Your task to perform on an android device: open app "YouTube Kids" (install if not already installed) and go to login screen Image 0: 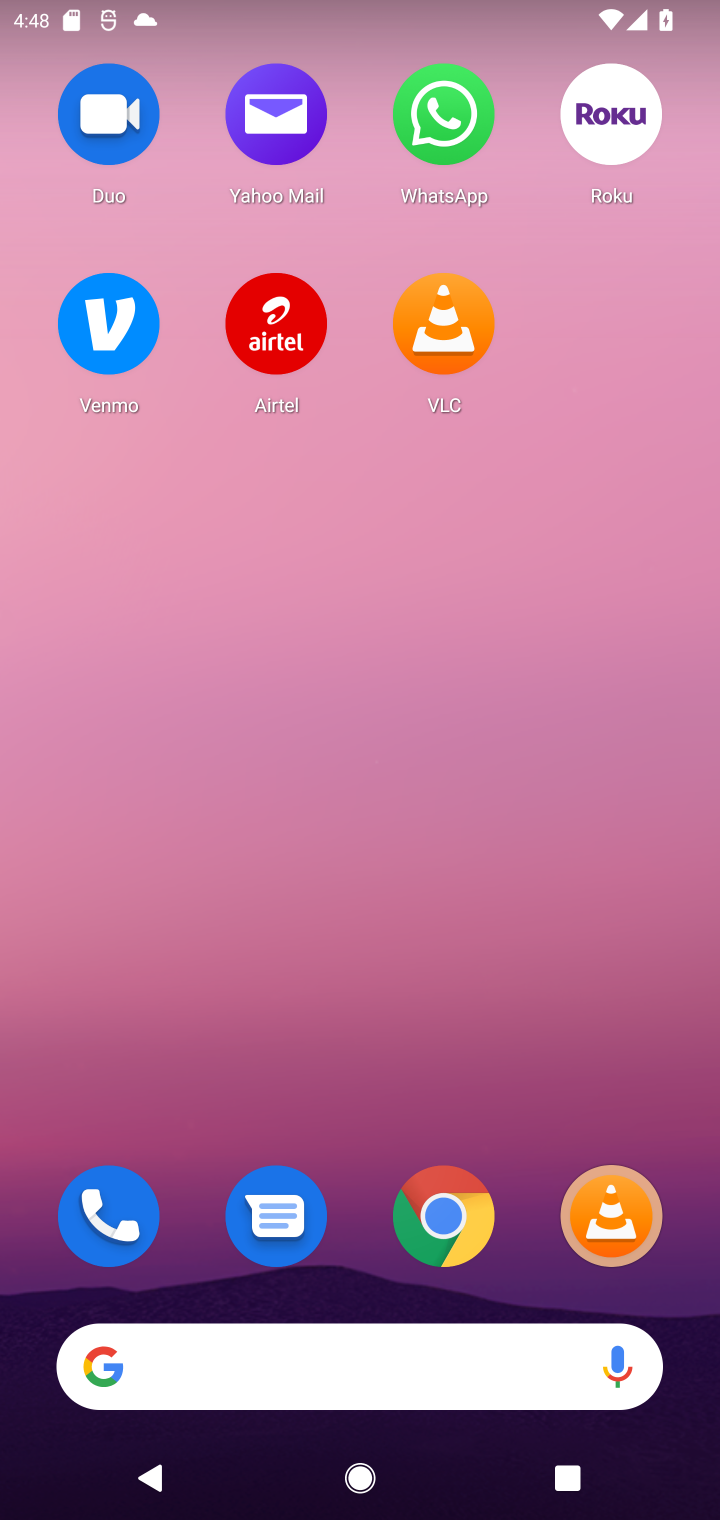
Step 0: drag from (394, 1083) to (403, 187)
Your task to perform on an android device: open app "YouTube Kids" (install if not already installed) and go to login screen Image 1: 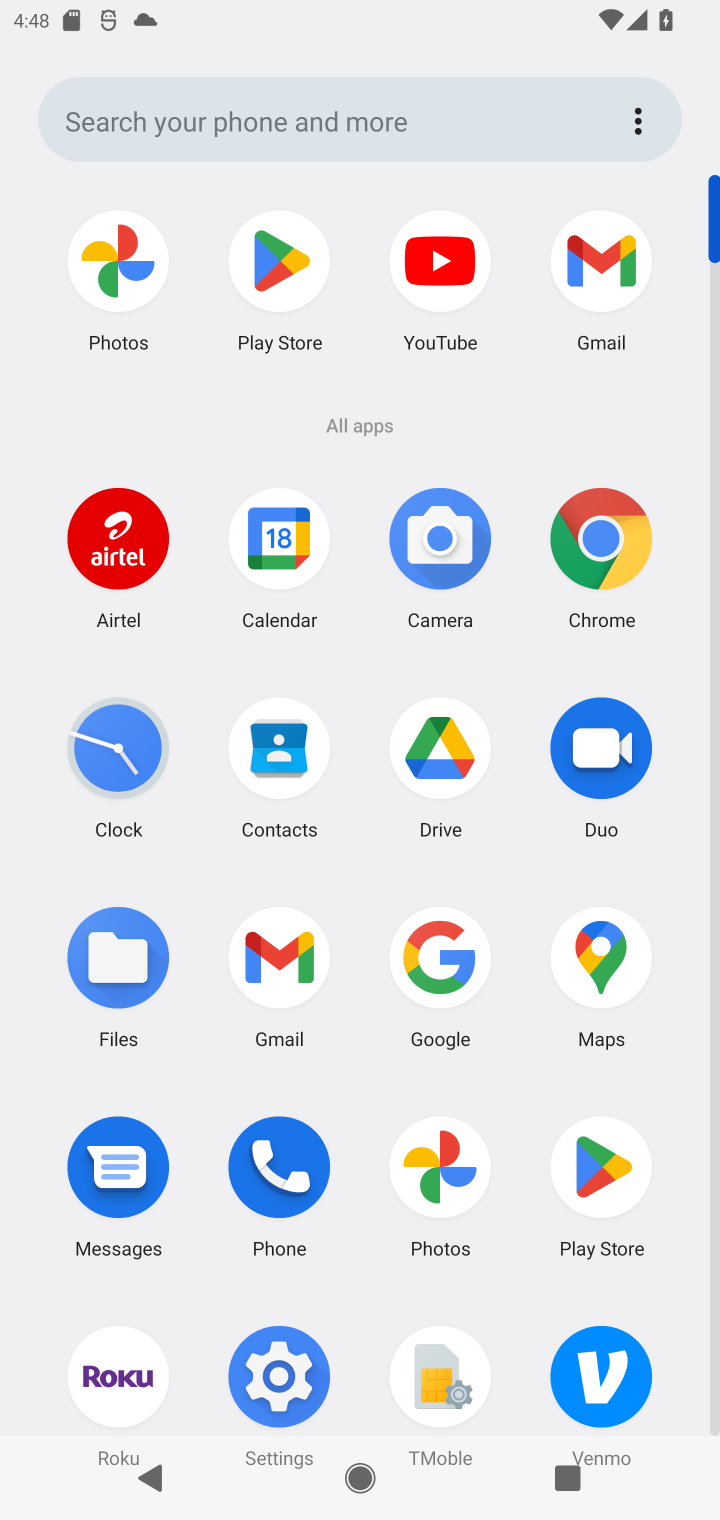
Step 1: click (294, 282)
Your task to perform on an android device: open app "YouTube Kids" (install if not already installed) and go to login screen Image 2: 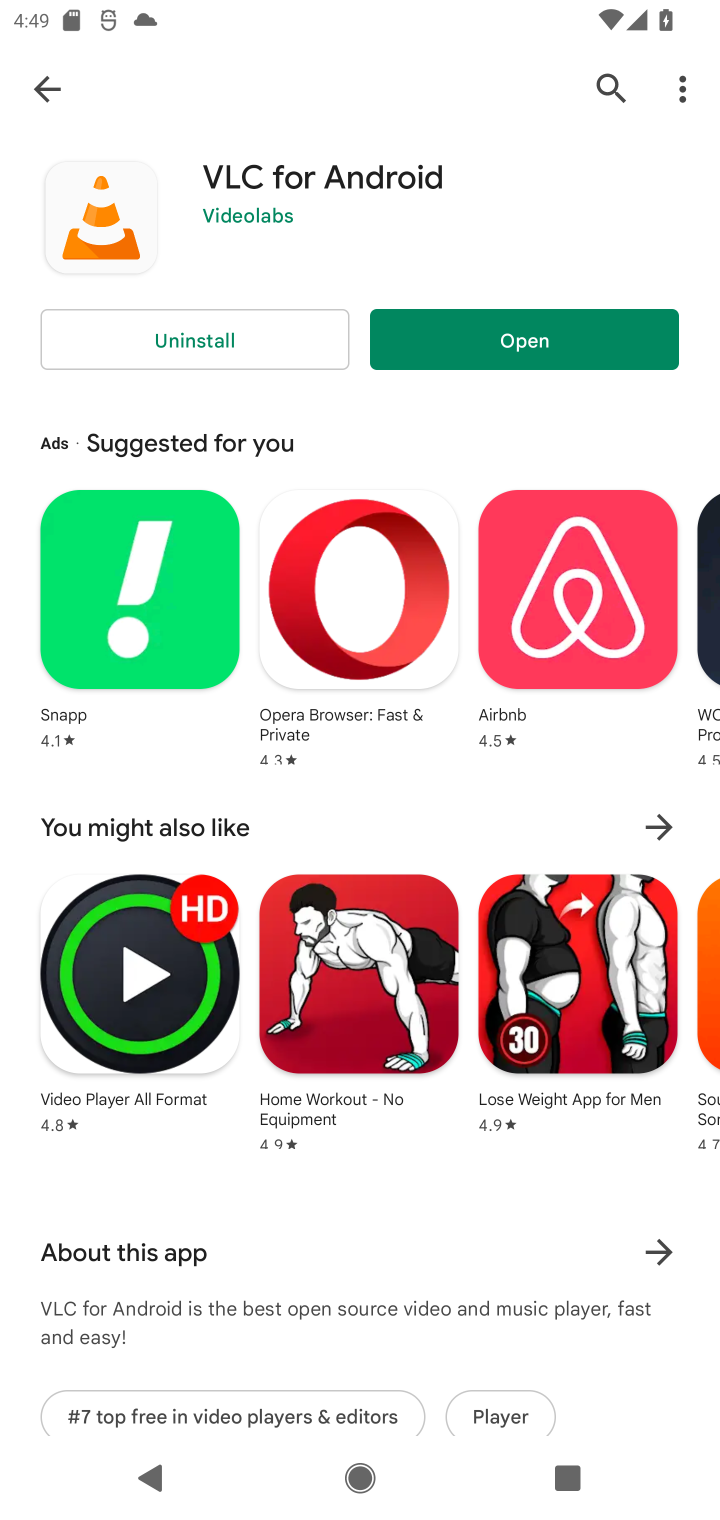
Step 2: click (614, 85)
Your task to perform on an android device: open app "YouTube Kids" (install if not already installed) and go to login screen Image 3: 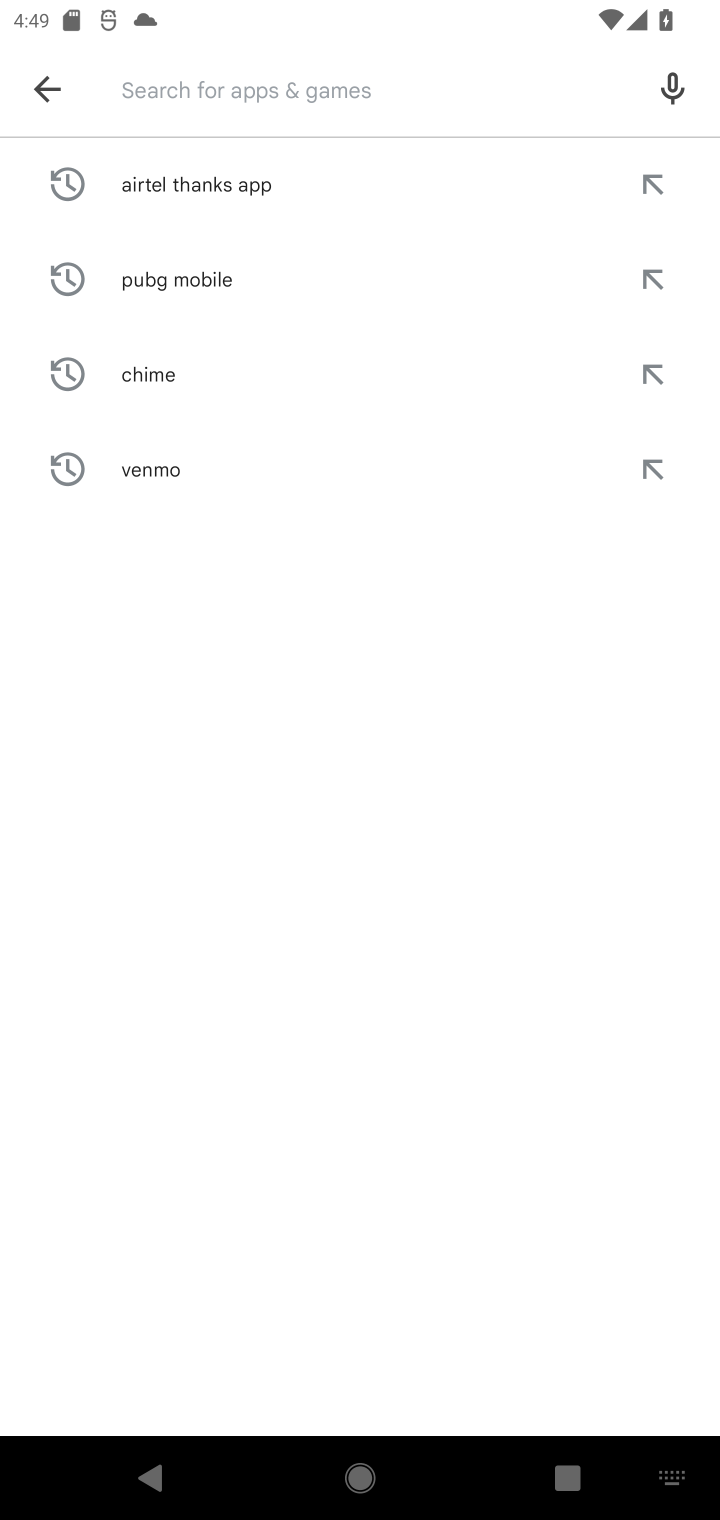
Step 3: type "YouTube Kids""
Your task to perform on an android device: open app "YouTube Kids" (install if not already installed) and go to login screen Image 4: 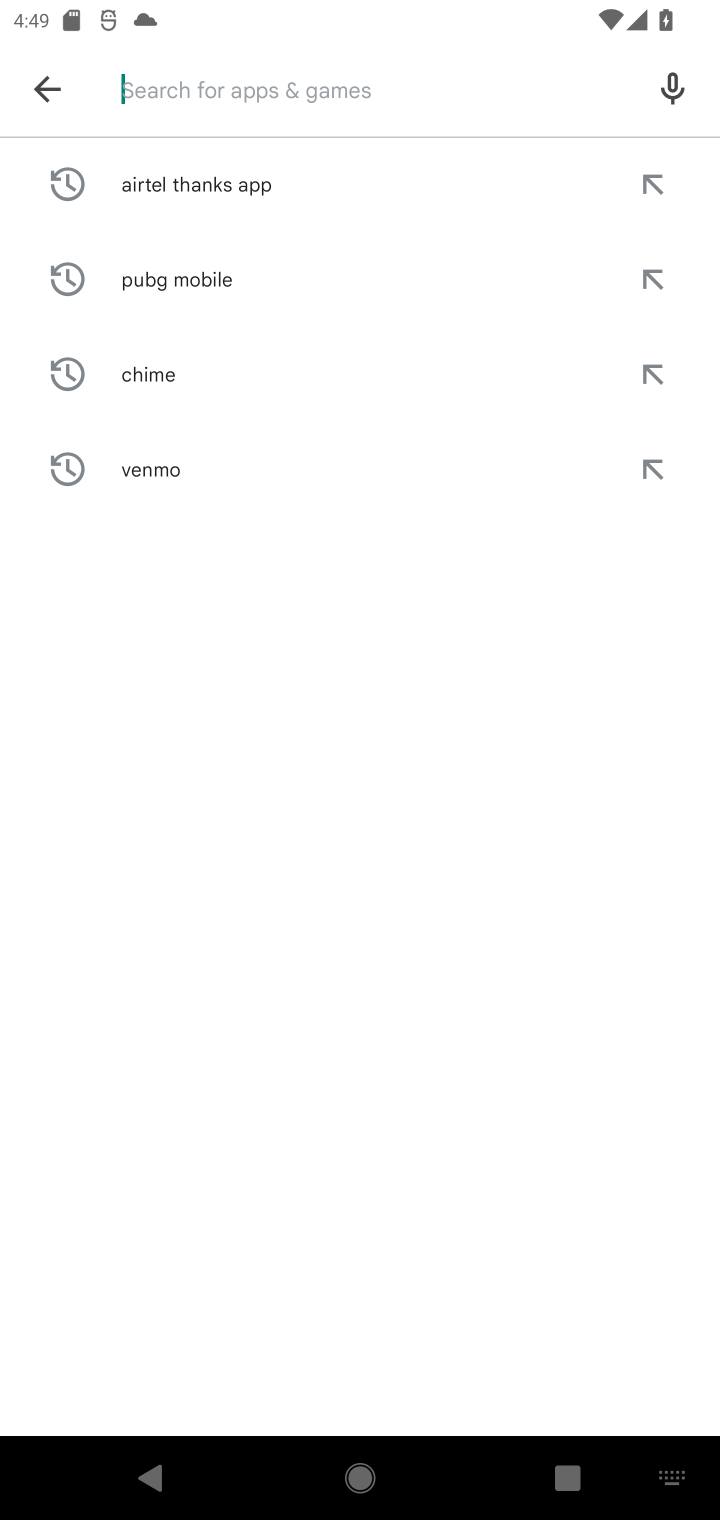
Step 4: type "YouTube Kids"
Your task to perform on an android device: open app "YouTube Kids" (install if not already installed) and go to login screen Image 5: 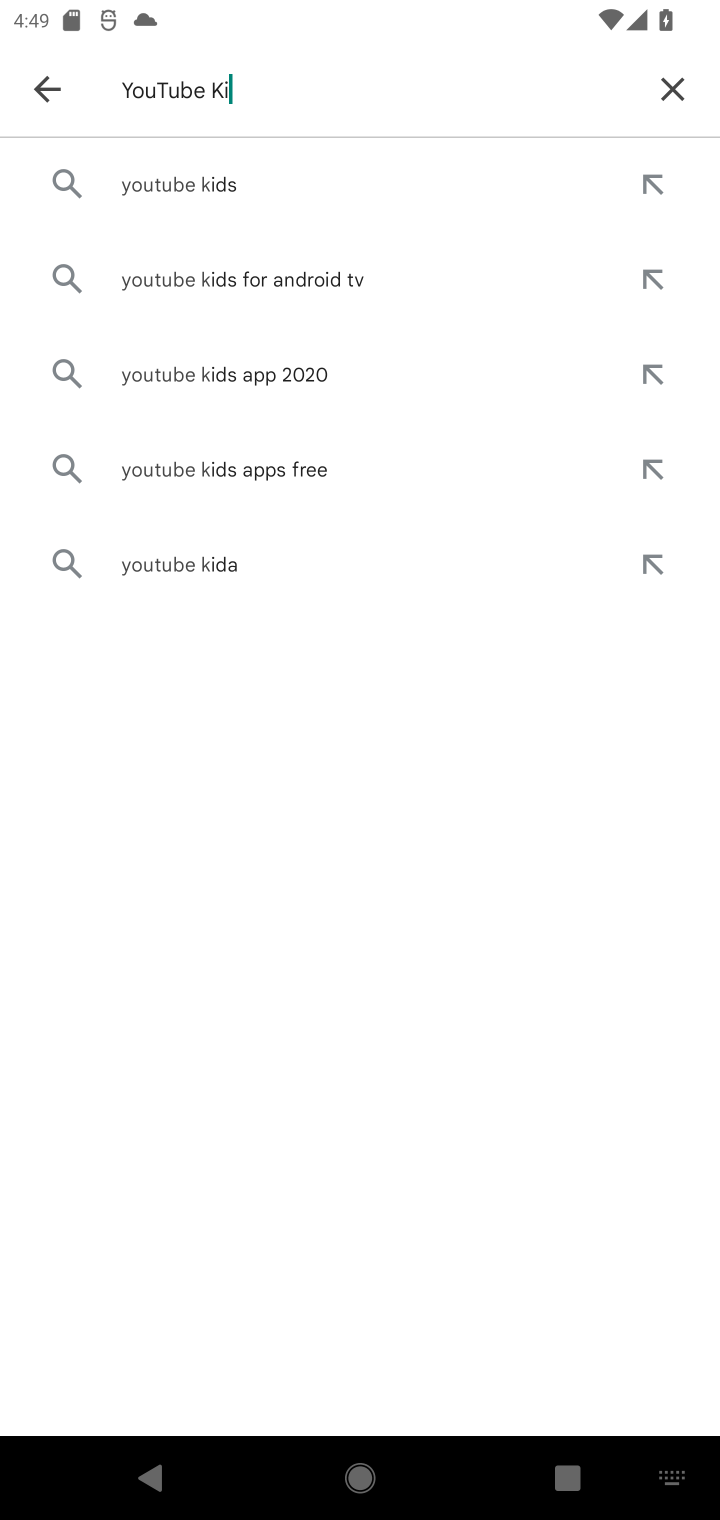
Step 5: type ""
Your task to perform on an android device: open app "YouTube Kids" (install if not already installed) and go to login screen Image 6: 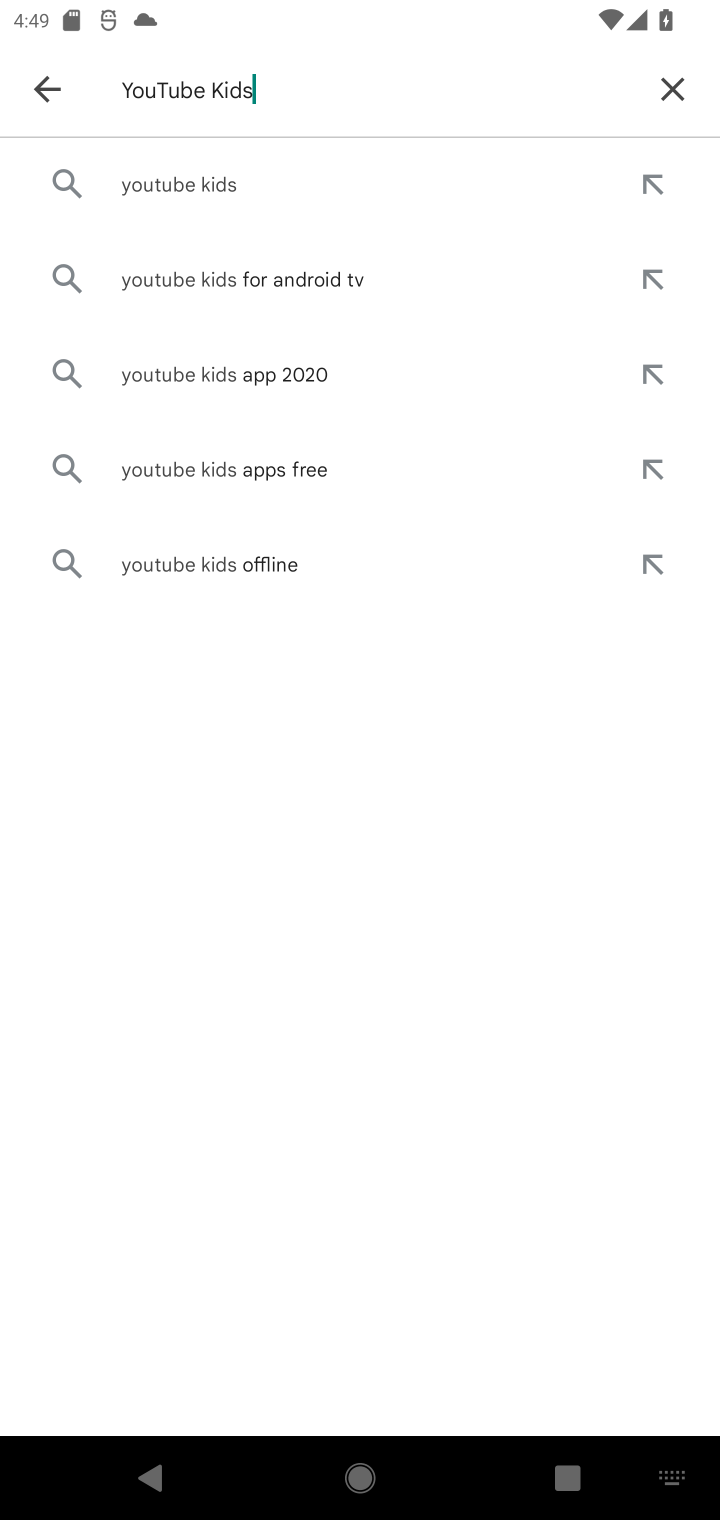
Step 6: click (189, 197)
Your task to perform on an android device: open app "YouTube Kids" (install if not already installed) and go to login screen Image 7: 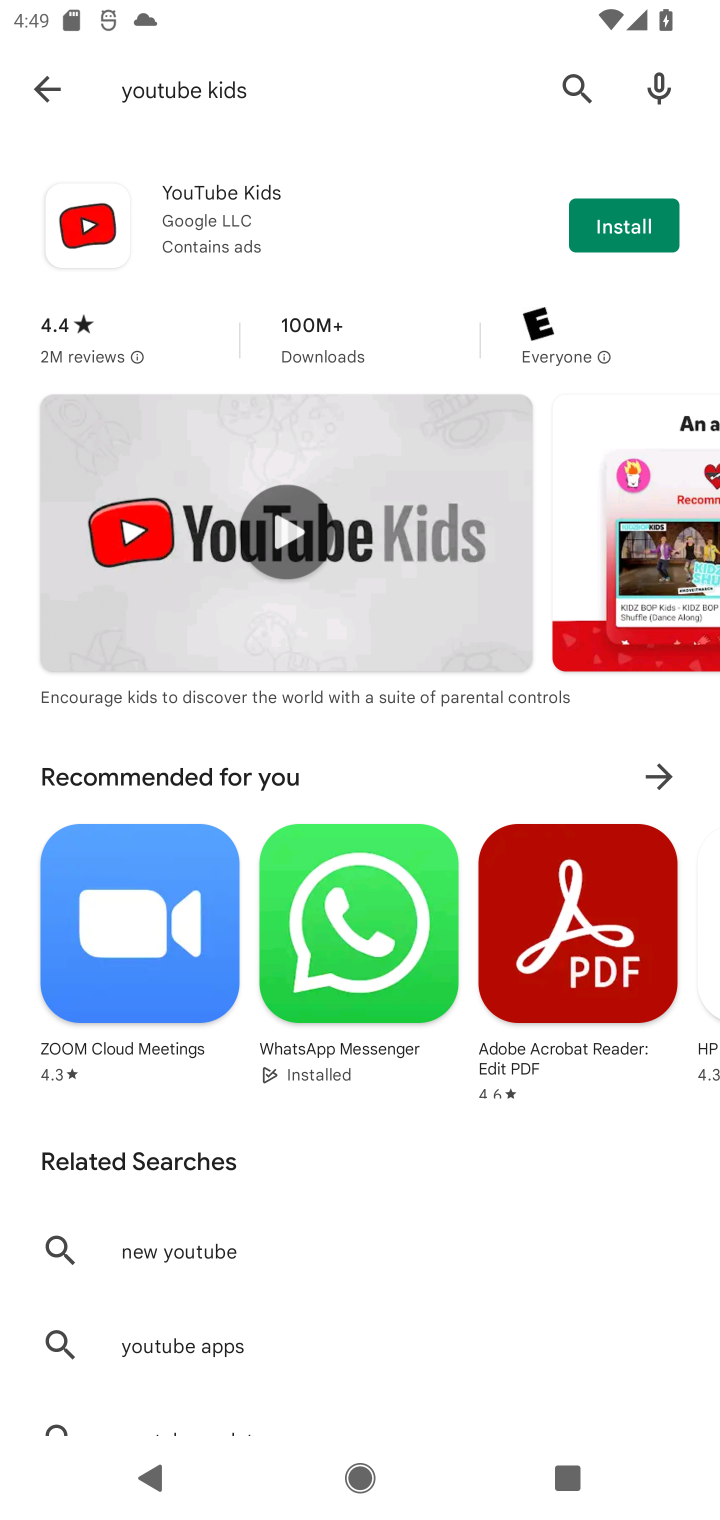
Step 7: click (671, 228)
Your task to perform on an android device: open app "YouTube Kids" (install if not already installed) and go to login screen Image 8: 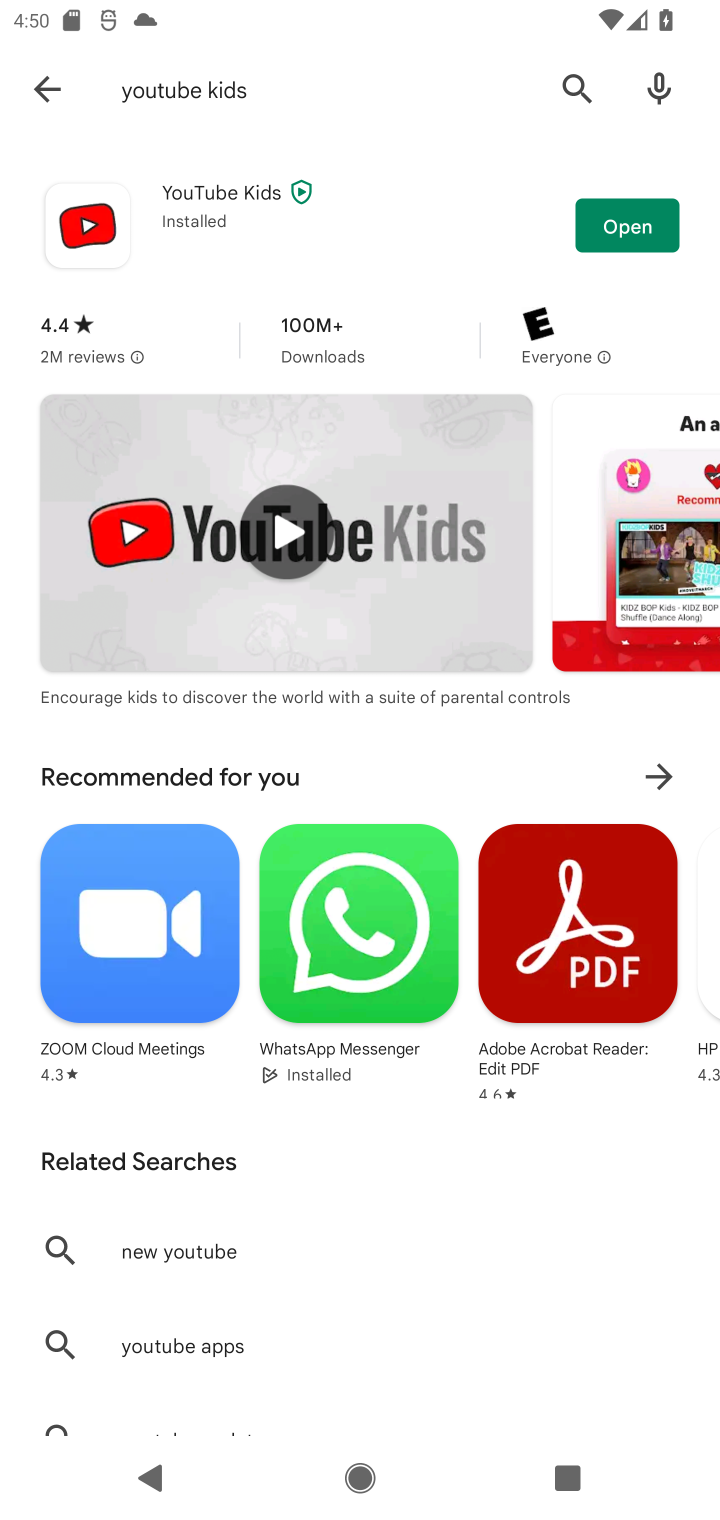
Step 8: click (596, 231)
Your task to perform on an android device: open app "YouTube Kids" (install if not already installed) and go to login screen Image 9: 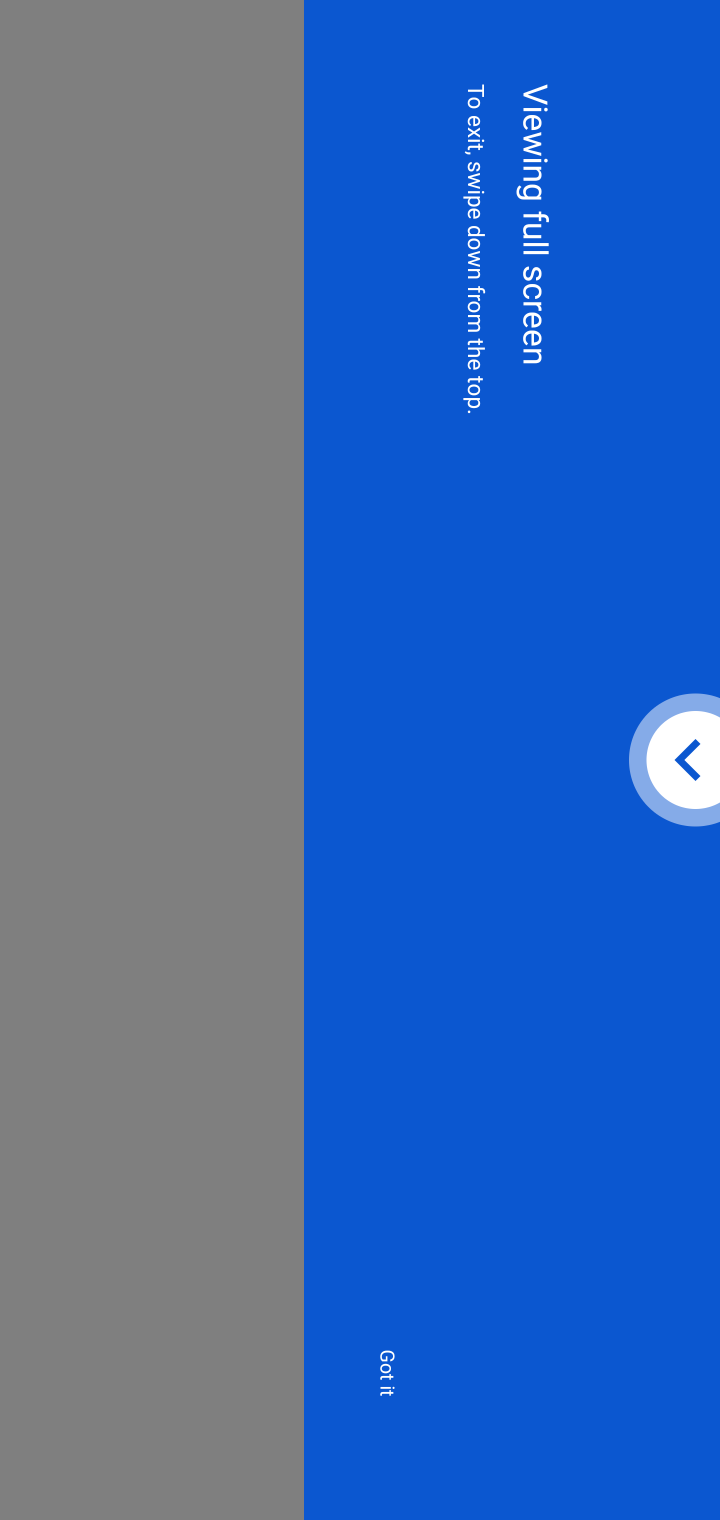
Step 9: task complete